Your task to perform on an android device: Go to internet settings Image 0: 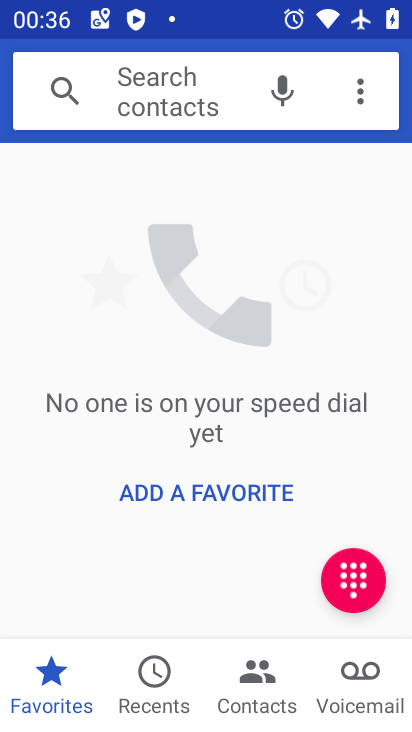
Step 0: press home button
Your task to perform on an android device: Go to internet settings Image 1: 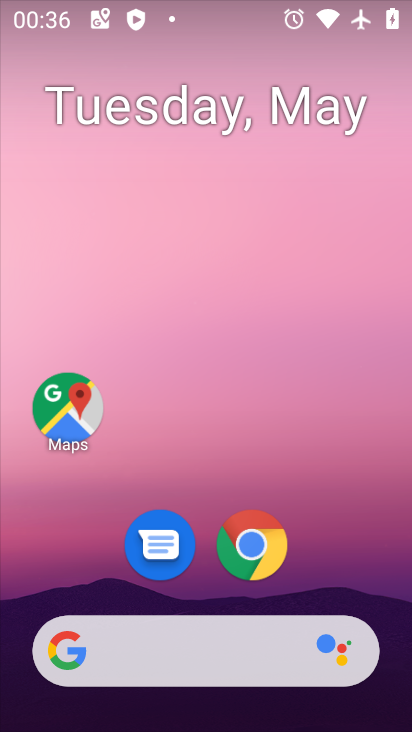
Step 1: drag from (307, 593) to (364, 76)
Your task to perform on an android device: Go to internet settings Image 2: 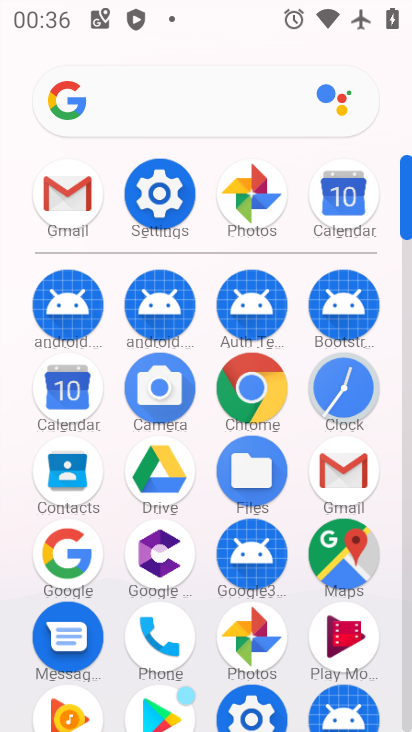
Step 2: click (159, 218)
Your task to perform on an android device: Go to internet settings Image 3: 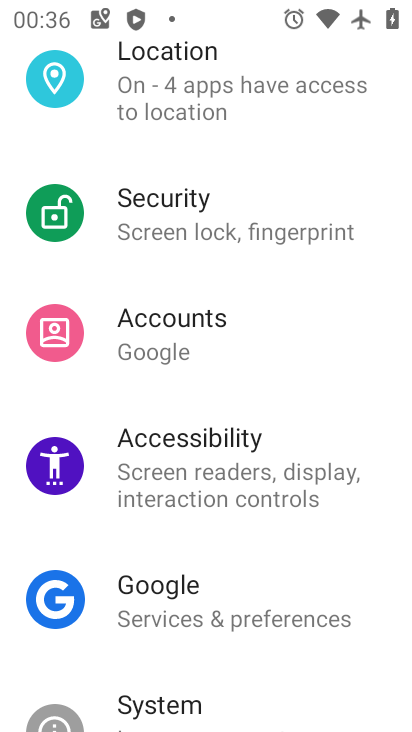
Step 3: drag from (159, 218) to (197, 393)
Your task to perform on an android device: Go to internet settings Image 4: 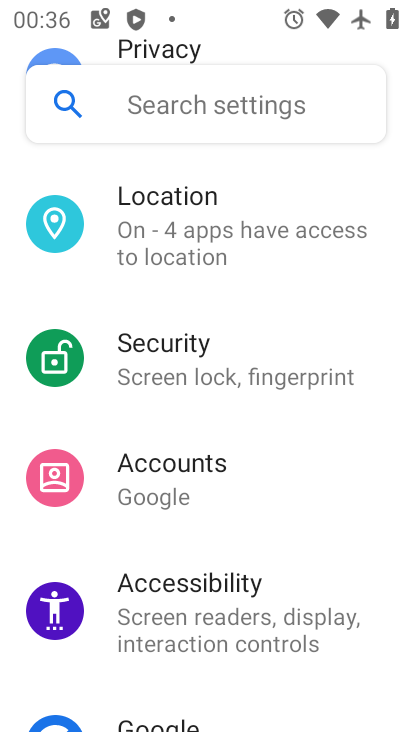
Step 4: drag from (153, 205) to (191, 394)
Your task to perform on an android device: Go to internet settings Image 5: 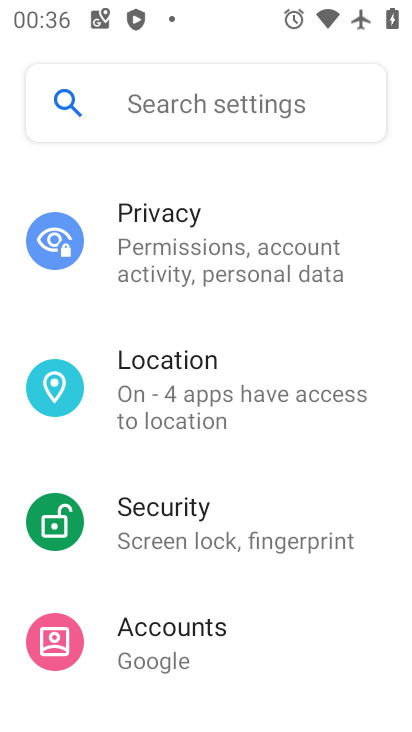
Step 5: drag from (153, 324) to (182, 493)
Your task to perform on an android device: Go to internet settings Image 6: 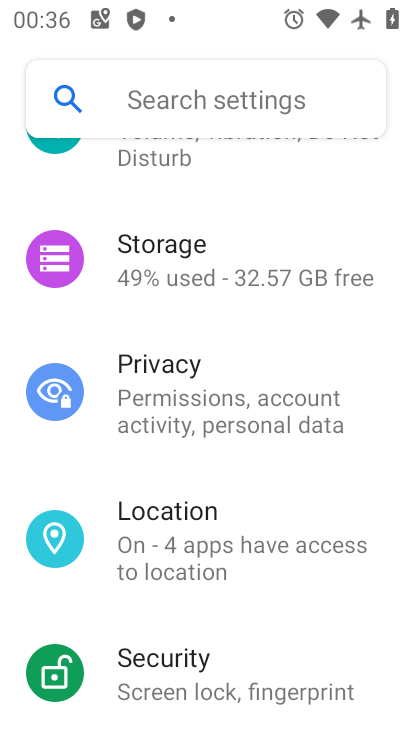
Step 6: drag from (123, 330) to (155, 467)
Your task to perform on an android device: Go to internet settings Image 7: 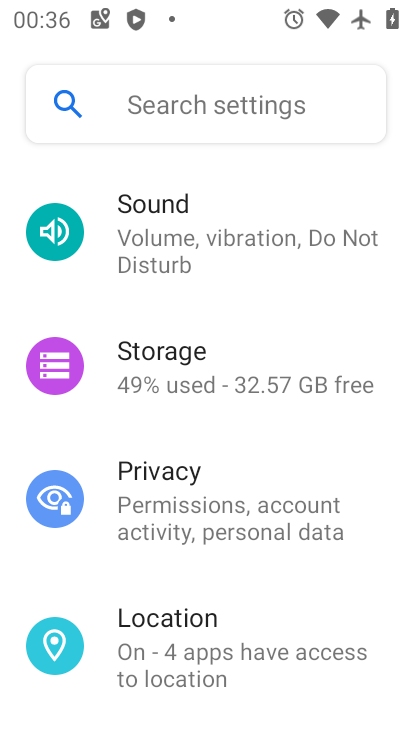
Step 7: drag from (80, 284) to (133, 438)
Your task to perform on an android device: Go to internet settings Image 8: 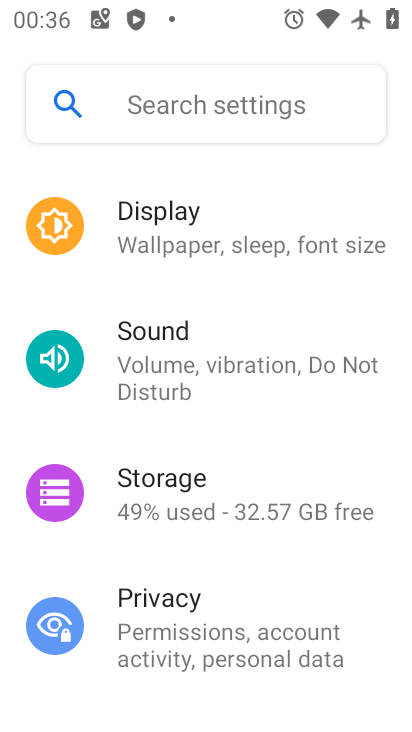
Step 8: drag from (99, 310) to (129, 468)
Your task to perform on an android device: Go to internet settings Image 9: 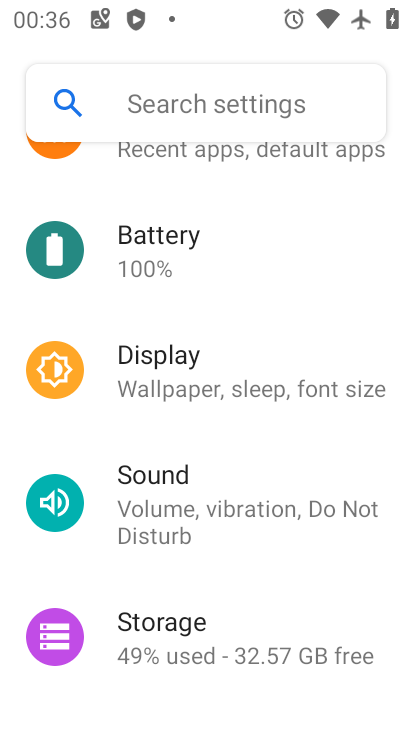
Step 9: drag from (108, 340) to (135, 525)
Your task to perform on an android device: Go to internet settings Image 10: 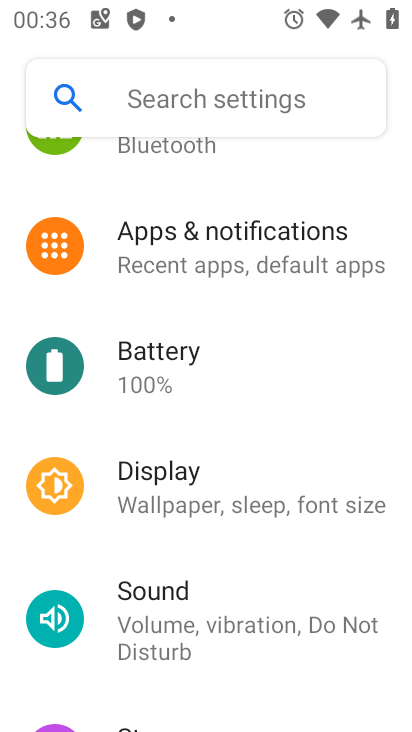
Step 10: drag from (108, 396) to (118, 580)
Your task to perform on an android device: Go to internet settings Image 11: 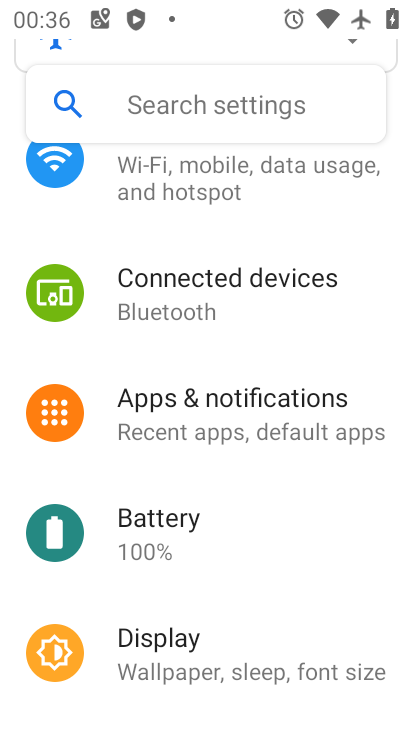
Step 11: click (163, 193)
Your task to perform on an android device: Go to internet settings Image 12: 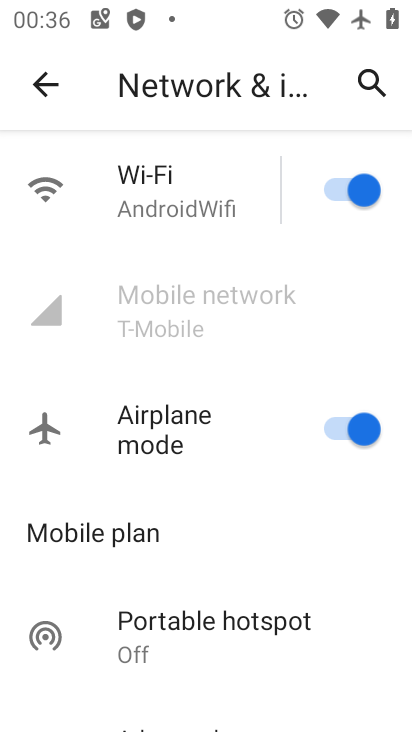
Step 12: click (101, 331)
Your task to perform on an android device: Go to internet settings Image 13: 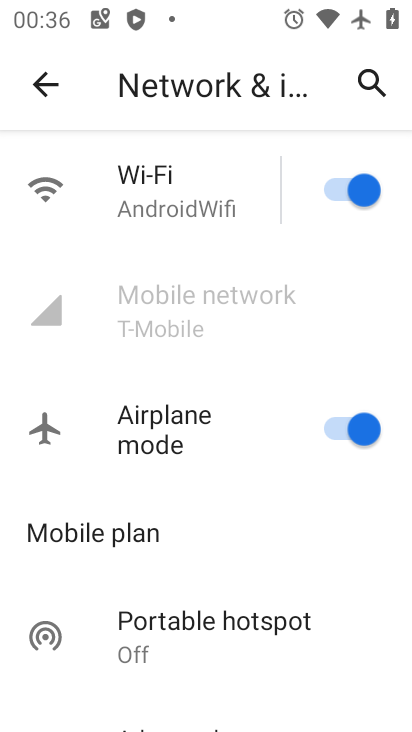
Step 13: task complete